Your task to perform on an android device: Empty the shopping cart on bestbuy.com. Search for "bose soundlink mini" on bestbuy.com, select the first entry, and add it to the cart. Image 0: 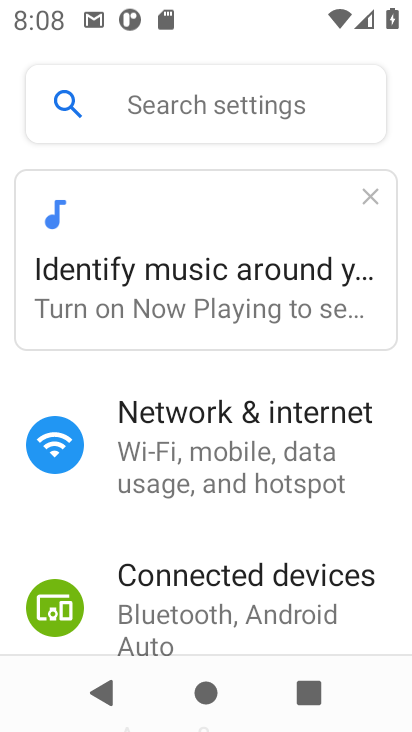
Step 0: press home button
Your task to perform on an android device: Empty the shopping cart on bestbuy.com. Search for "bose soundlink mini" on bestbuy.com, select the first entry, and add it to the cart. Image 1: 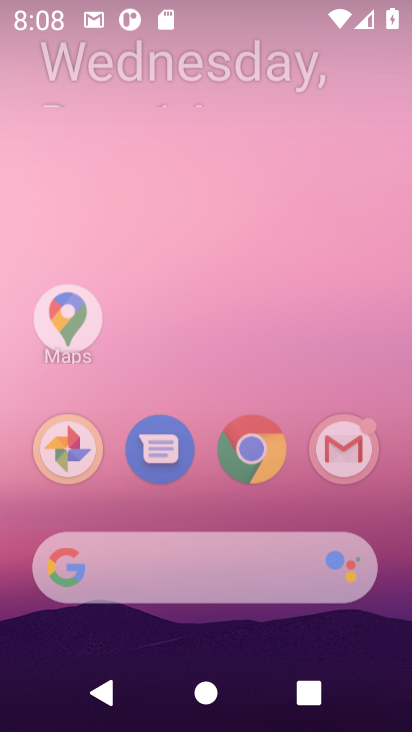
Step 1: press home button
Your task to perform on an android device: Empty the shopping cart on bestbuy.com. Search for "bose soundlink mini" on bestbuy.com, select the first entry, and add it to the cart. Image 2: 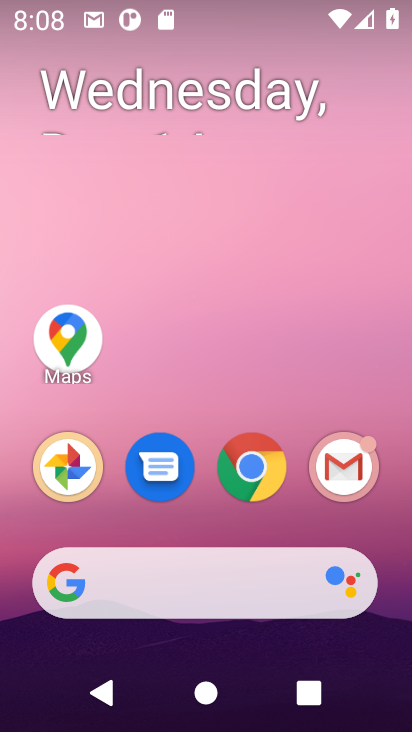
Step 2: click (247, 458)
Your task to perform on an android device: Empty the shopping cart on bestbuy.com. Search for "bose soundlink mini" on bestbuy.com, select the first entry, and add it to the cart. Image 3: 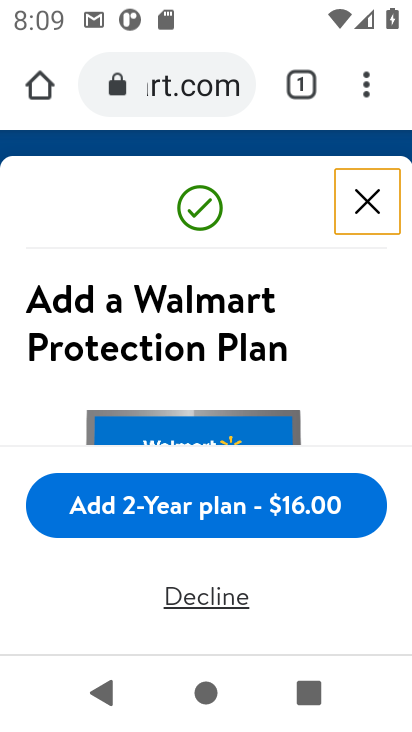
Step 3: click (379, 204)
Your task to perform on an android device: Empty the shopping cart on bestbuy.com. Search for "bose soundlink mini" on bestbuy.com, select the first entry, and add it to the cart. Image 4: 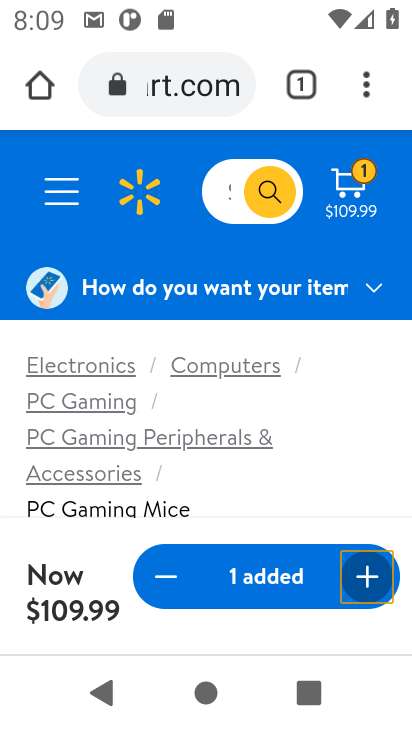
Step 4: click (185, 99)
Your task to perform on an android device: Empty the shopping cart on bestbuy.com. Search for "bose soundlink mini" on bestbuy.com, select the first entry, and add it to the cart. Image 5: 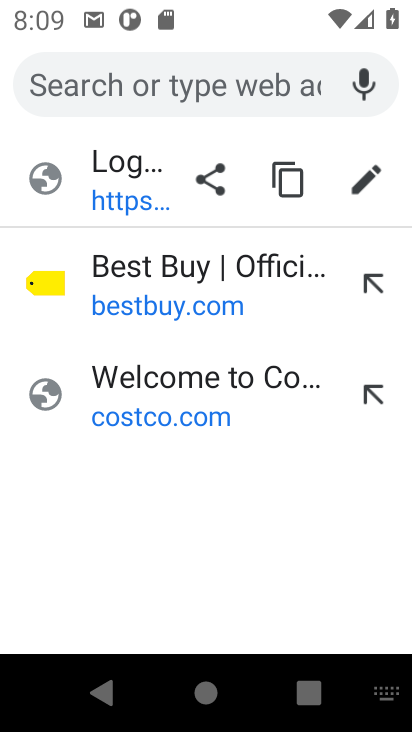
Step 5: type "bestbuy"
Your task to perform on an android device: Empty the shopping cart on bestbuy.com. Search for "bose soundlink mini" on bestbuy.com, select the first entry, and add it to the cart. Image 6: 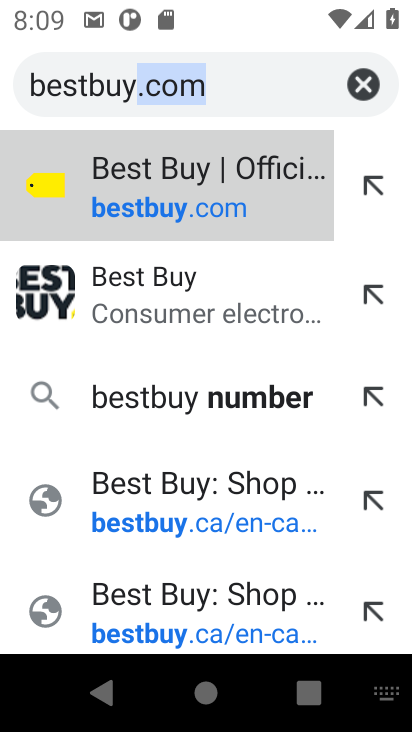
Step 6: click (149, 200)
Your task to perform on an android device: Empty the shopping cart on bestbuy.com. Search for "bose soundlink mini" on bestbuy.com, select the first entry, and add it to the cart. Image 7: 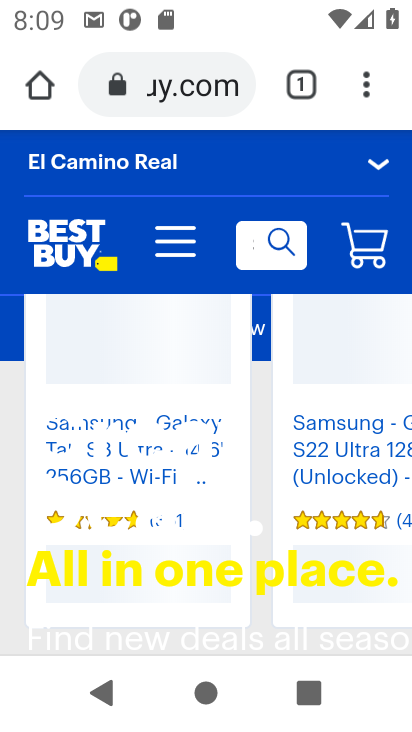
Step 7: click (269, 260)
Your task to perform on an android device: Empty the shopping cart on bestbuy.com. Search for "bose soundlink mini" on bestbuy.com, select the first entry, and add it to the cart. Image 8: 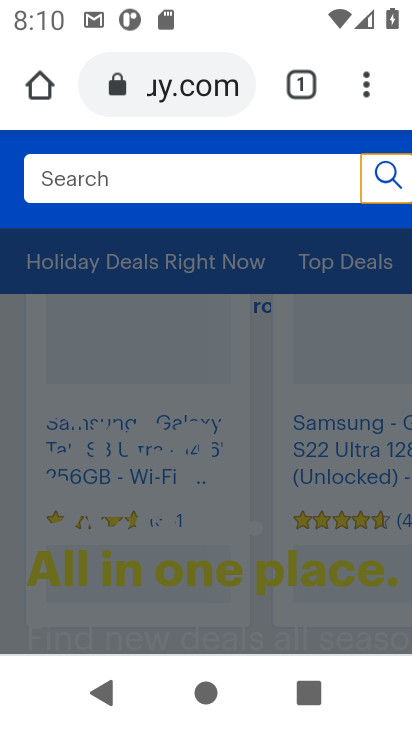
Step 8: type "bose soundlink"
Your task to perform on an android device: Empty the shopping cart on bestbuy.com. Search for "bose soundlink mini" on bestbuy.com, select the first entry, and add it to the cart. Image 9: 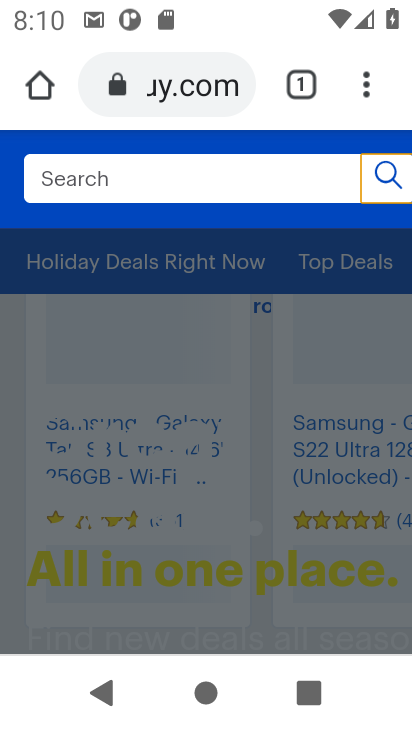
Step 9: click (54, 175)
Your task to perform on an android device: Empty the shopping cart on bestbuy.com. Search for "bose soundlink mini" on bestbuy.com, select the first entry, and add it to the cart. Image 10: 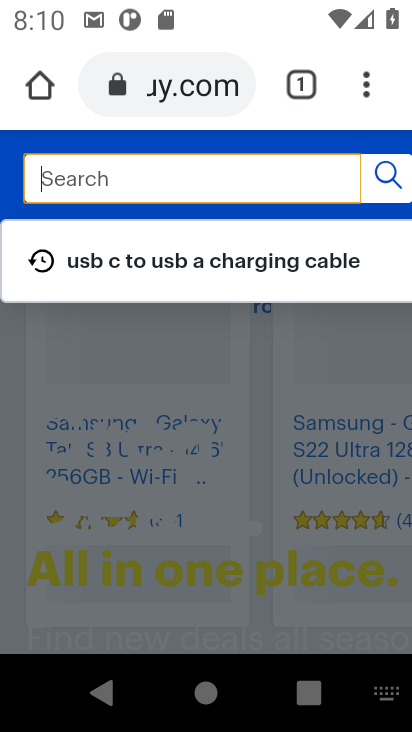
Step 10: type "bose soundlink"
Your task to perform on an android device: Empty the shopping cart on bestbuy.com. Search for "bose soundlink mini" on bestbuy.com, select the first entry, and add it to the cart. Image 11: 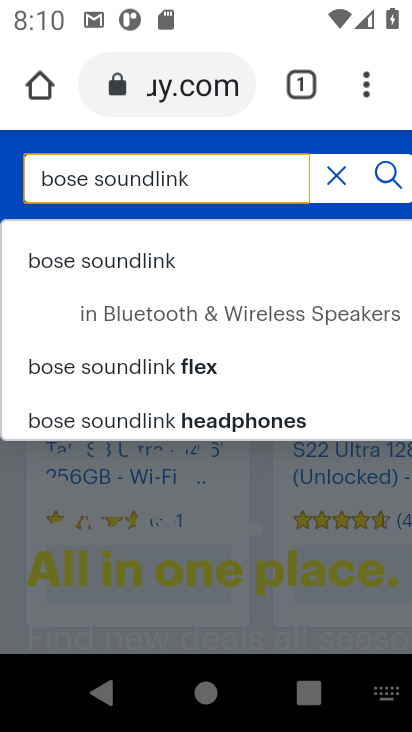
Step 11: click (114, 279)
Your task to perform on an android device: Empty the shopping cart on bestbuy.com. Search for "bose soundlink mini" on bestbuy.com, select the first entry, and add it to the cart. Image 12: 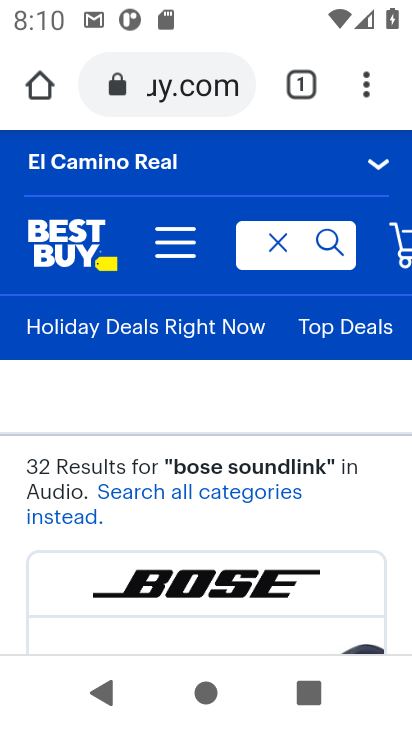
Step 12: drag from (208, 555) to (222, 285)
Your task to perform on an android device: Empty the shopping cart on bestbuy.com. Search for "bose soundlink mini" on bestbuy.com, select the first entry, and add it to the cart. Image 13: 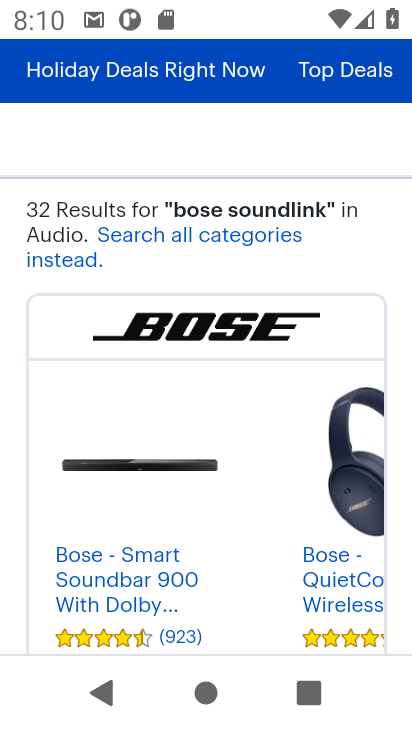
Step 13: click (186, 566)
Your task to perform on an android device: Empty the shopping cart on bestbuy.com. Search for "bose soundlink mini" on bestbuy.com, select the first entry, and add it to the cart. Image 14: 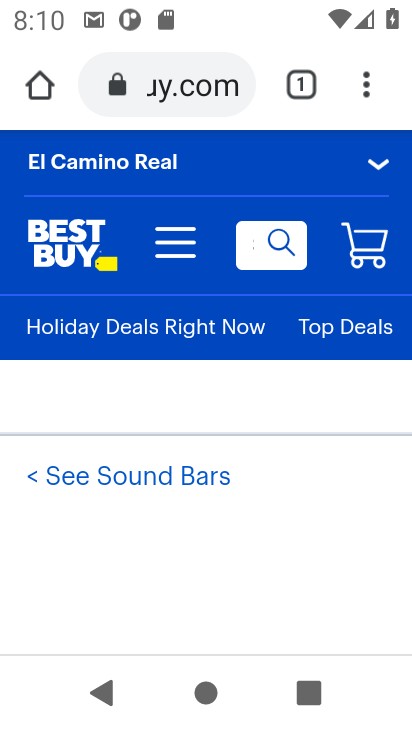
Step 14: task complete